Your task to perform on an android device: empty trash in google photos Image 0: 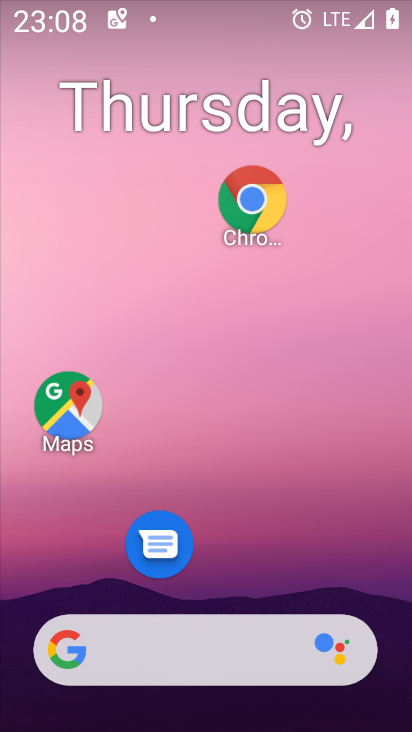
Step 0: drag from (266, 601) to (295, 149)
Your task to perform on an android device: empty trash in google photos Image 1: 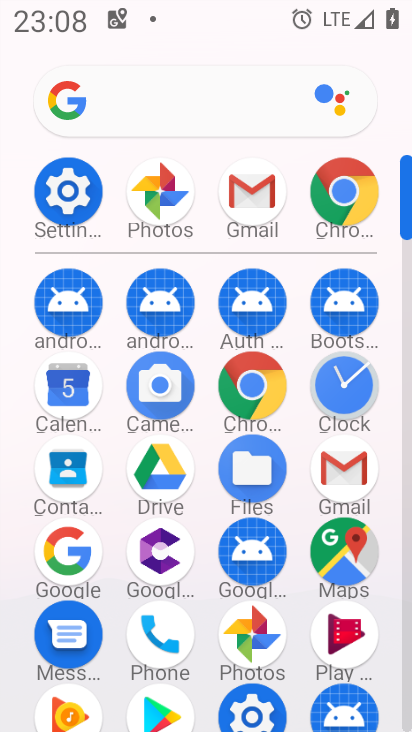
Step 1: click (166, 222)
Your task to perform on an android device: empty trash in google photos Image 2: 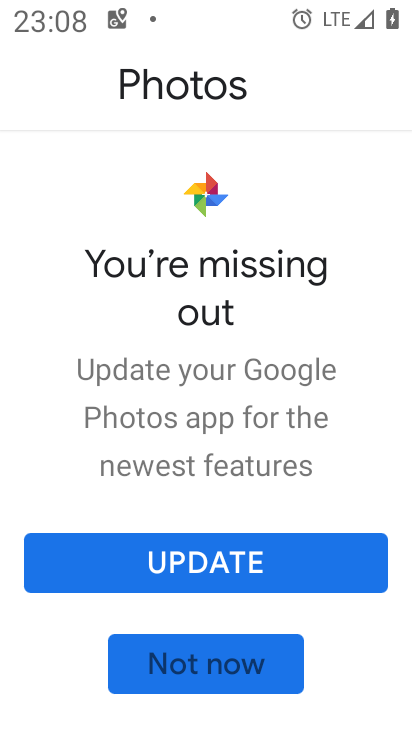
Step 2: click (212, 664)
Your task to perform on an android device: empty trash in google photos Image 3: 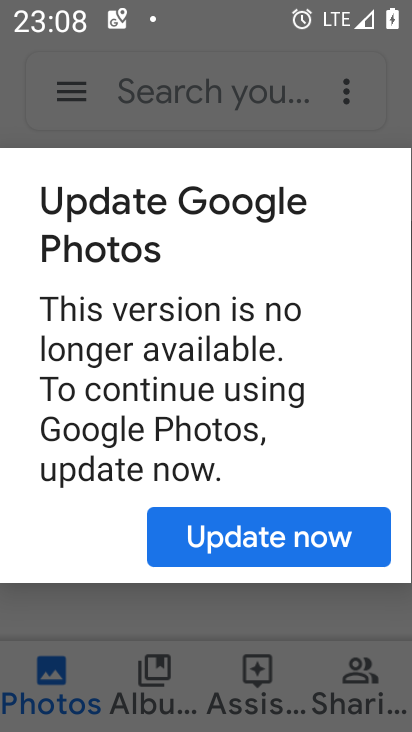
Step 3: click (215, 536)
Your task to perform on an android device: empty trash in google photos Image 4: 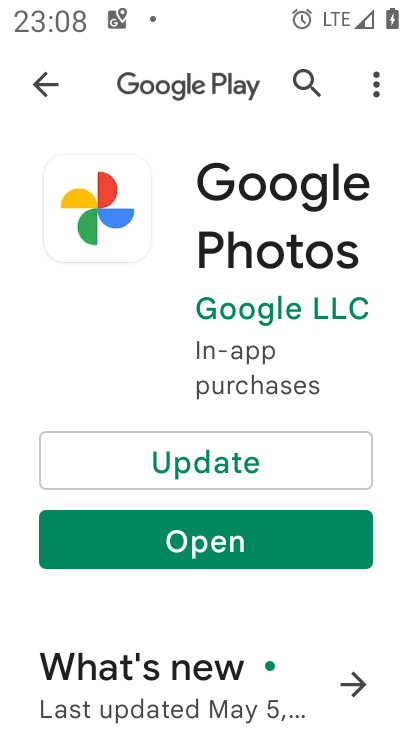
Step 4: click (215, 536)
Your task to perform on an android device: empty trash in google photos Image 5: 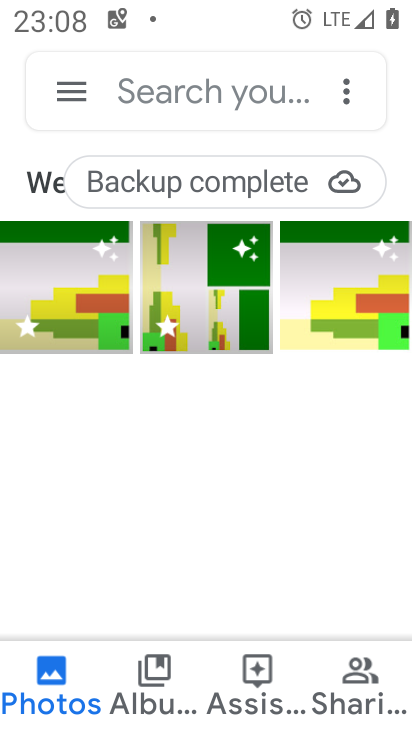
Step 5: click (70, 113)
Your task to perform on an android device: empty trash in google photos Image 6: 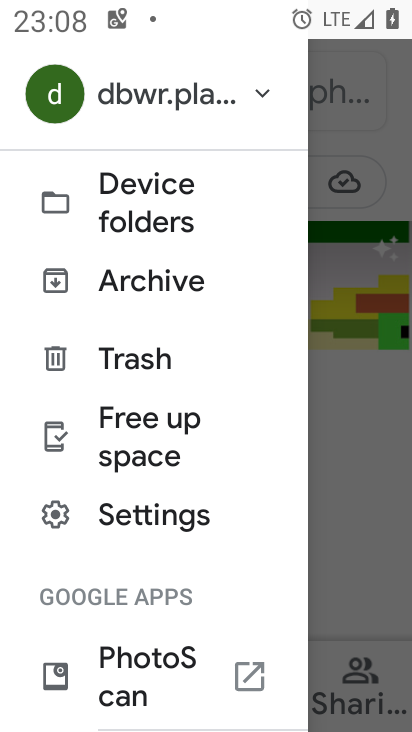
Step 6: click (109, 344)
Your task to perform on an android device: empty trash in google photos Image 7: 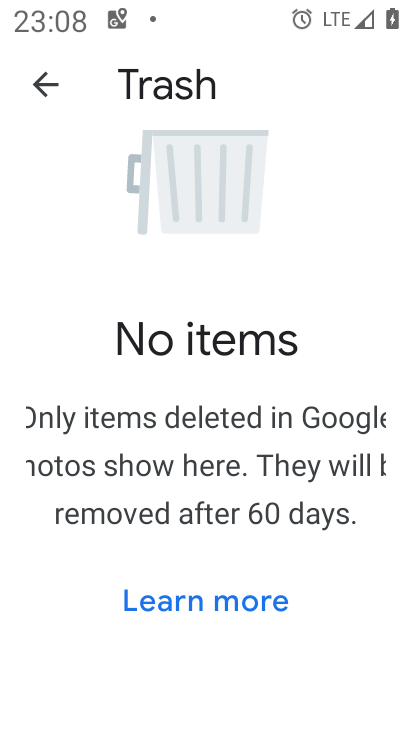
Step 7: task complete